Your task to perform on an android device: stop showing notifications on the lock screen Image 0: 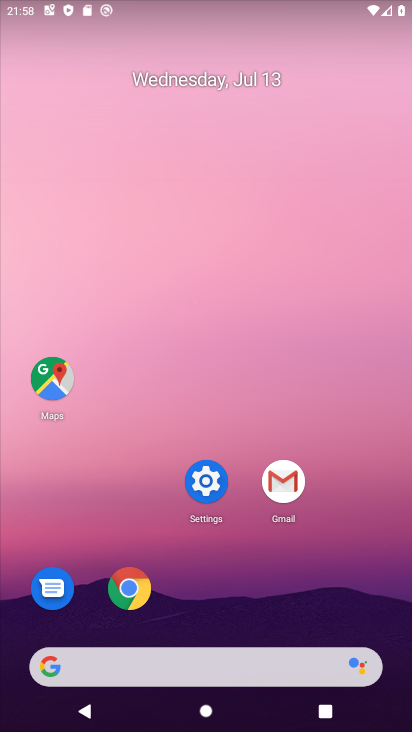
Step 0: click (205, 493)
Your task to perform on an android device: stop showing notifications on the lock screen Image 1: 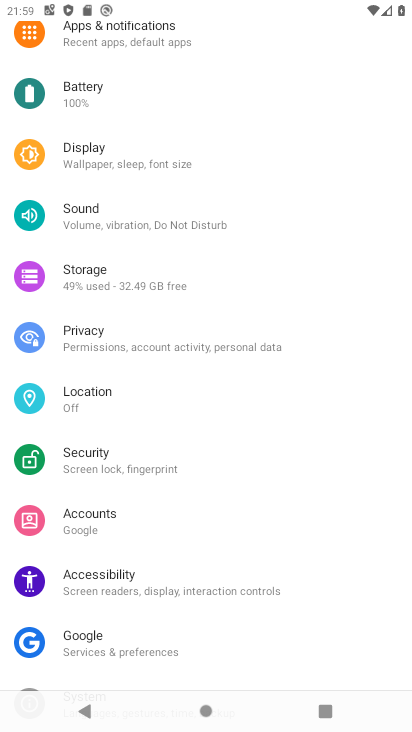
Step 1: click (119, 32)
Your task to perform on an android device: stop showing notifications on the lock screen Image 2: 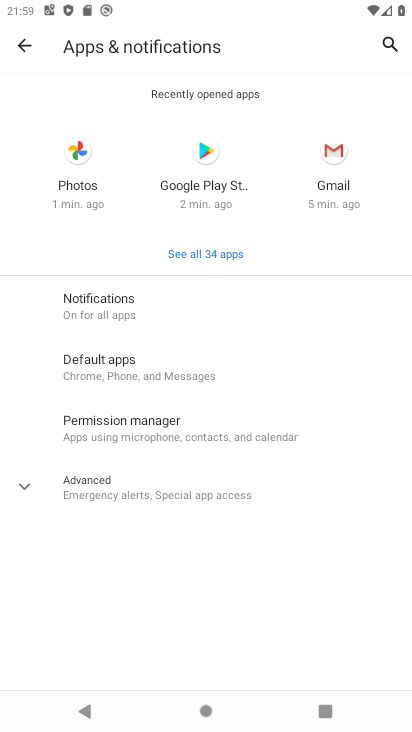
Step 2: click (90, 301)
Your task to perform on an android device: stop showing notifications on the lock screen Image 3: 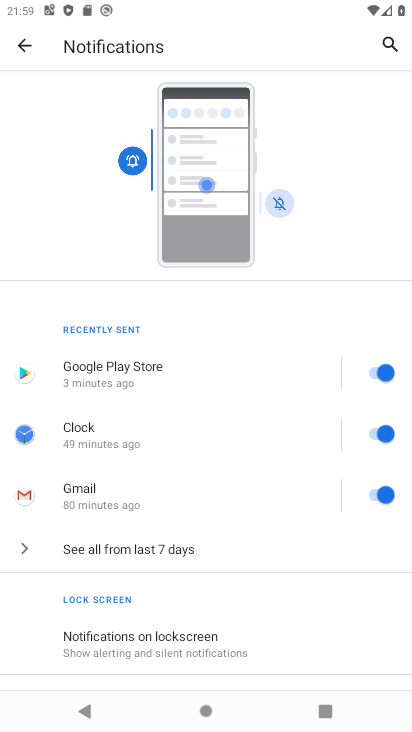
Step 3: click (122, 639)
Your task to perform on an android device: stop showing notifications on the lock screen Image 4: 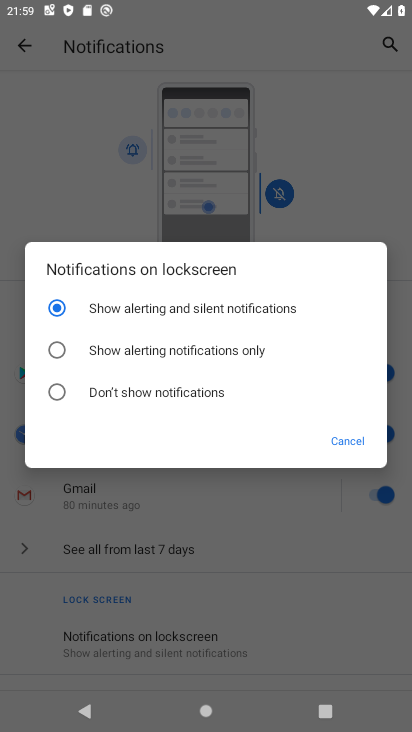
Step 4: click (55, 390)
Your task to perform on an android device: stop showing notifications on the lock screen Image 5: 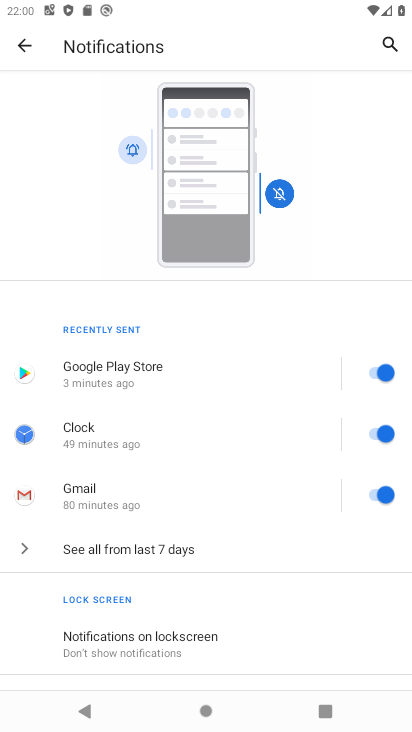
Step 5: task complete